Your task to perform on an android device: add a contact Image 0: 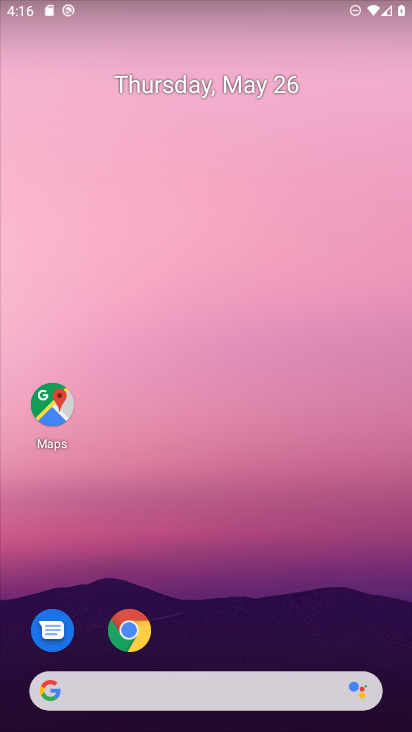
Step 0: drag from (233, 568) to (227, 56)
Your task to perform on an android device: add a contact Image 1: 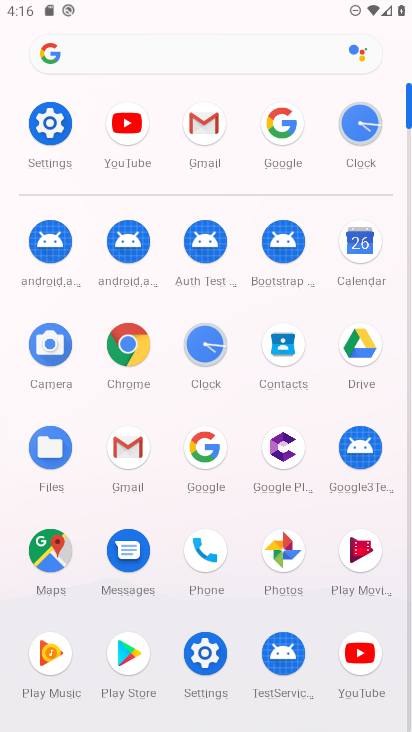
Step 1: click (285, 344)
Your task to perform on an android device: add a contact Image 2: 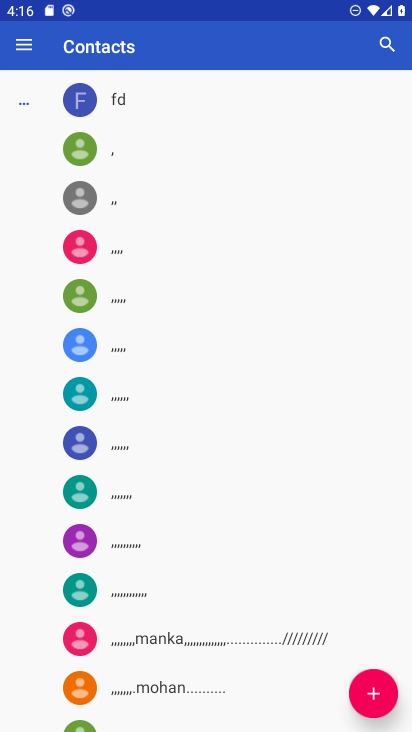
Step 2: click (375, 692)
Your task to perform on an android device: add a contact Image 3: 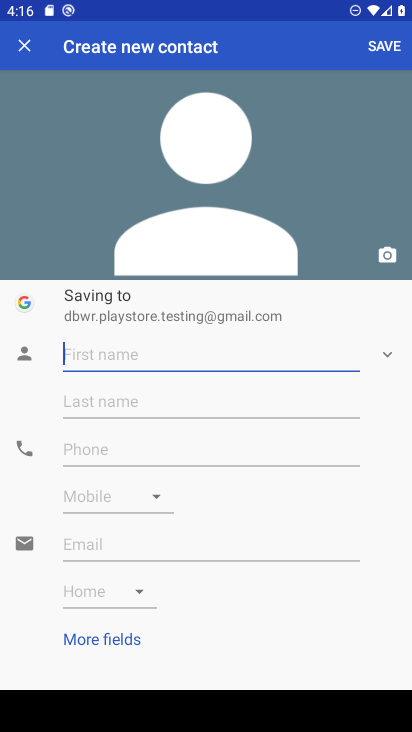
Step 3: click (183, 354)
Your task to perform on an android device: add a contact Image 4: 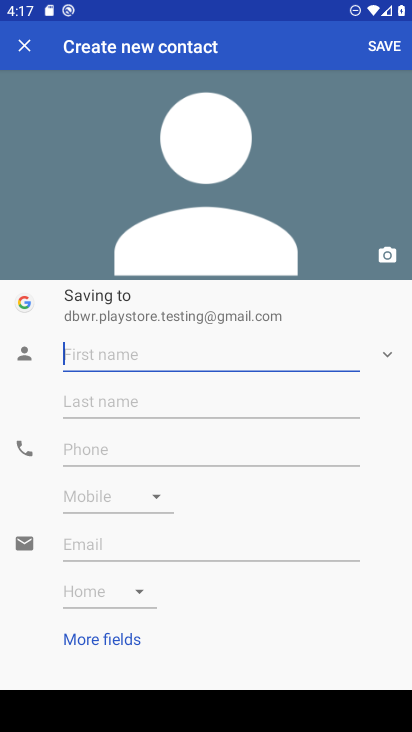
Step 4: type "Supindar"
Your task to perform on an android device: add a contact Image 5: 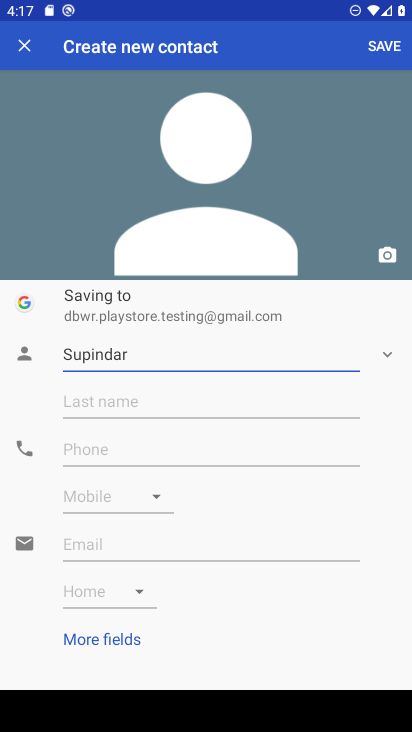
Step 5: click (146, 405)
Your task to perform on an android device: add a contact Image 6: 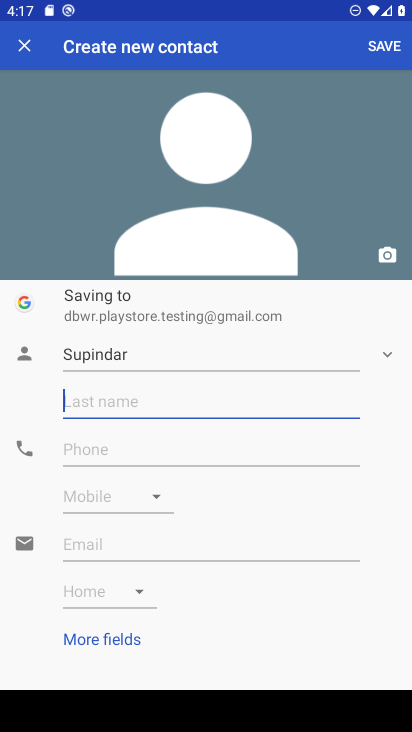
Step 6: type "Tohra"
Your task to perform on an android device: add a contact Image 7: 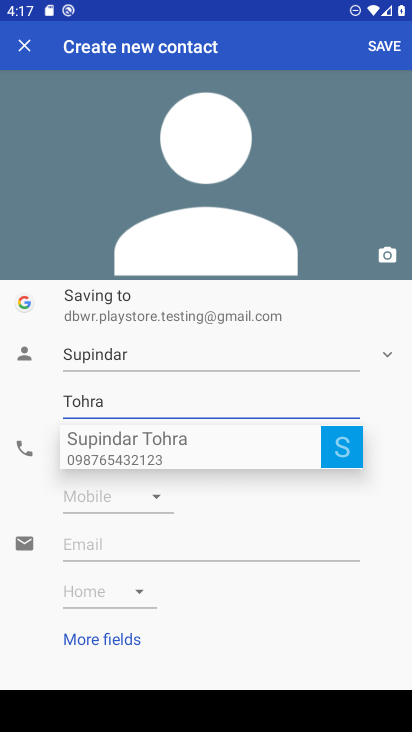
Step 7: click (231, 408)
Your task to perform on an android device: add a contact Image 8: 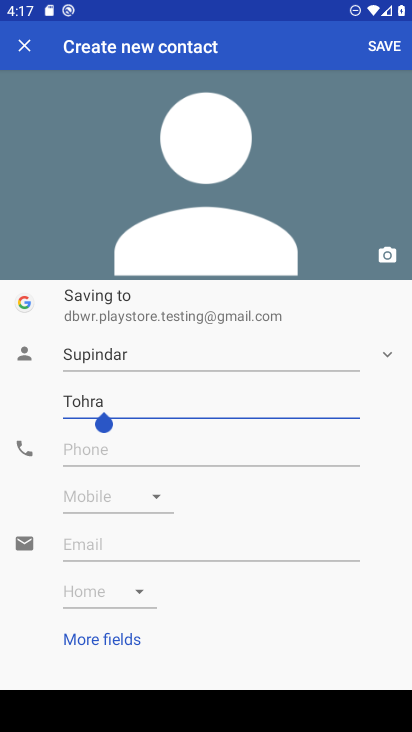
Step 8: click (209, 450)
Your task to perform on an android device: add a contact Image 9: 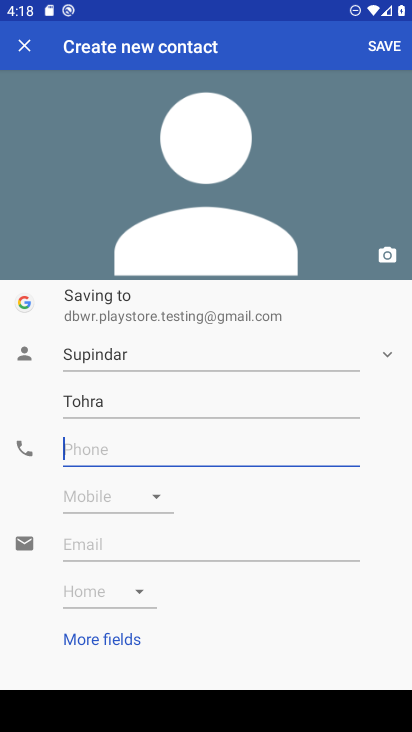
Step 9: type "09987554322"
Your task to perform on an android device: add a contact Image 10: 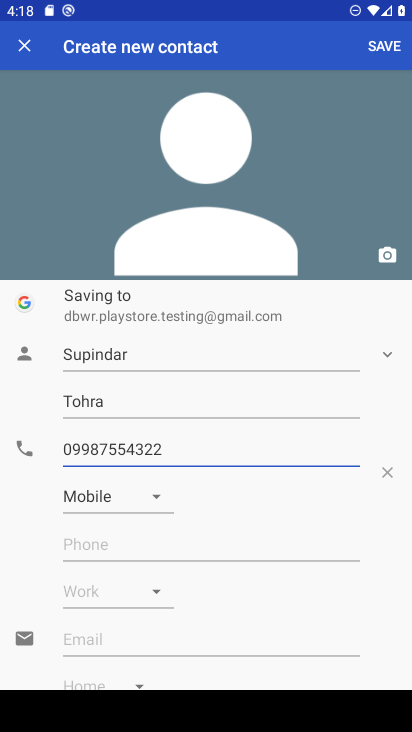
Step 10: click (389, 43)
Your task to perform on an android device: add a contact Image 11: 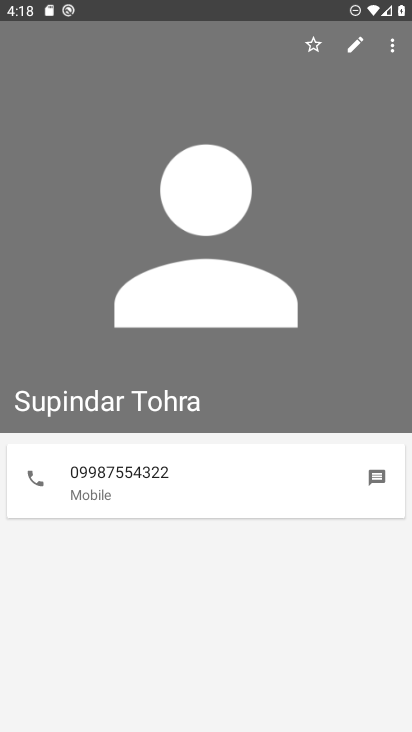
Step 11: task complete